Your task to perform on an android device: add a contact in the contacts app Image 0: 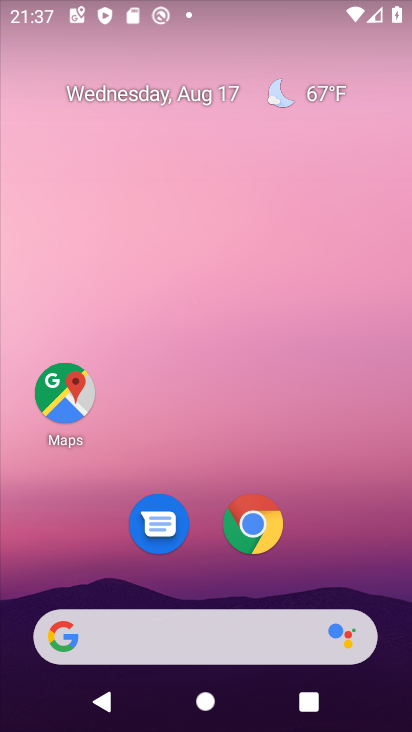
Step 0: drag from (321, 539) to (359, 2)
Your task to perform on an android device: add a contact in the contacts app Image 1: 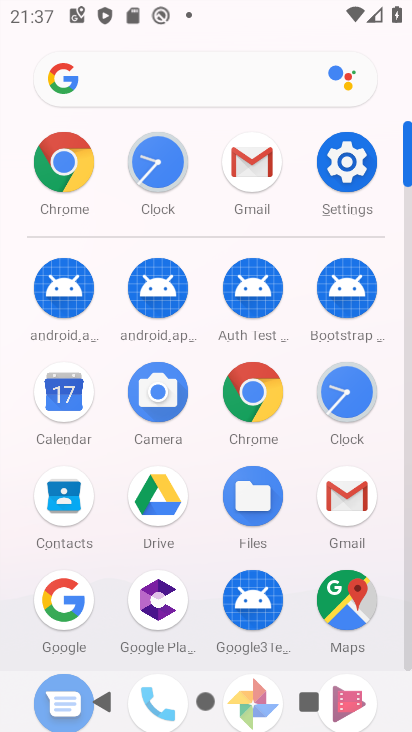
Step 1: click (77, 498)
Your task to perform on an android device: add a contact in the contacts app Image 2: 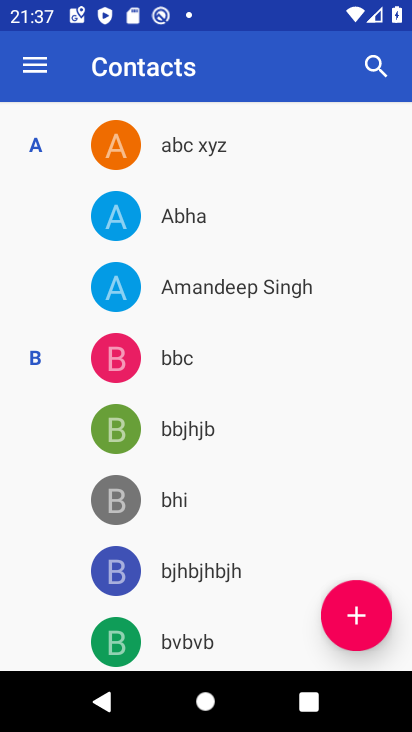
Step 2: click (357, 609)
Your task to perform on an android device: add a contact in the contacts app Image 3: 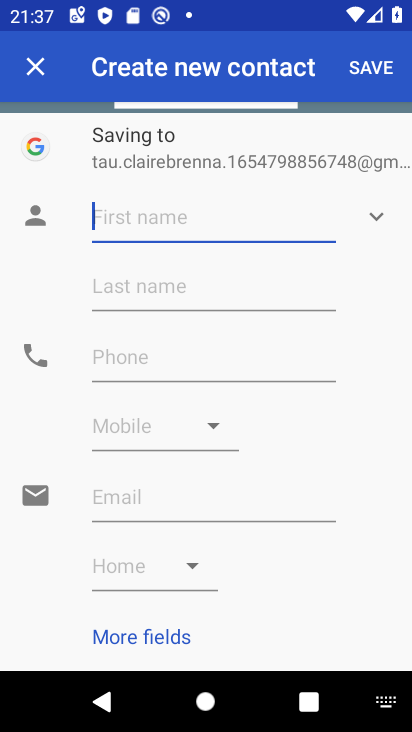
Step 3: type "Abba"
Your task to perform on an android device: add a contact in the contacts app Image 4: 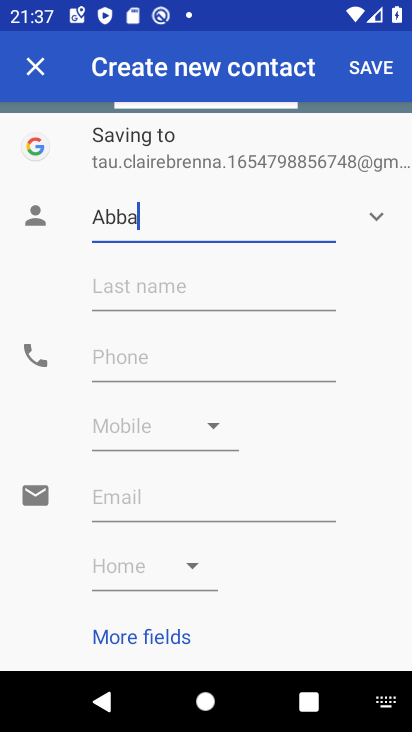
Step 4: click (254, 360)
Your task to perform on an android device: add a contact in the contacts app Image 5: 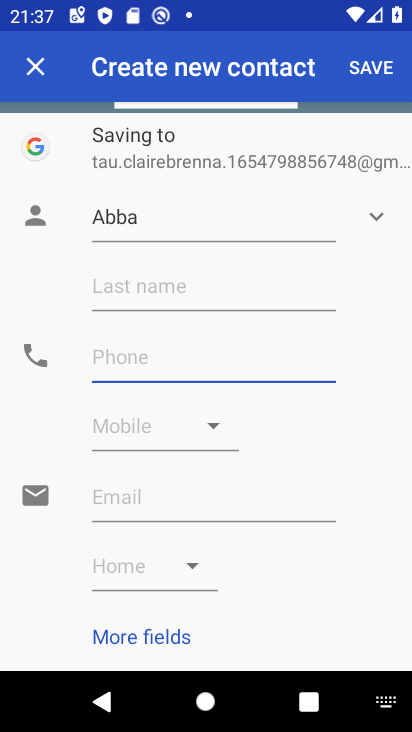
Step 5: type "+919999776655"
Your task to perform on an android device: add a contact in the contacts app Image 6: 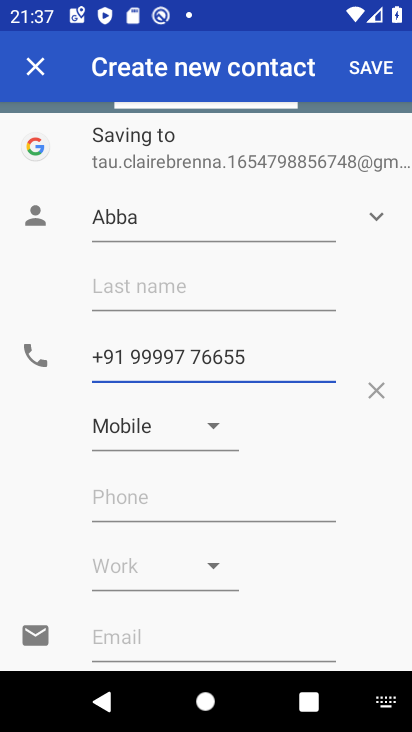
Step 6: click (370, 65)
Your task to perform on an android device: add a contact in the contacts app Image 7: 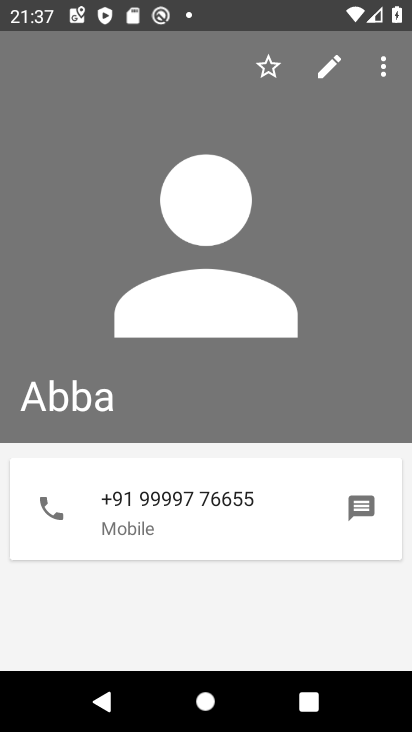
Step 7: task complete